Your task to perform on an android device: install app "Indeed Job Search" Image 0: 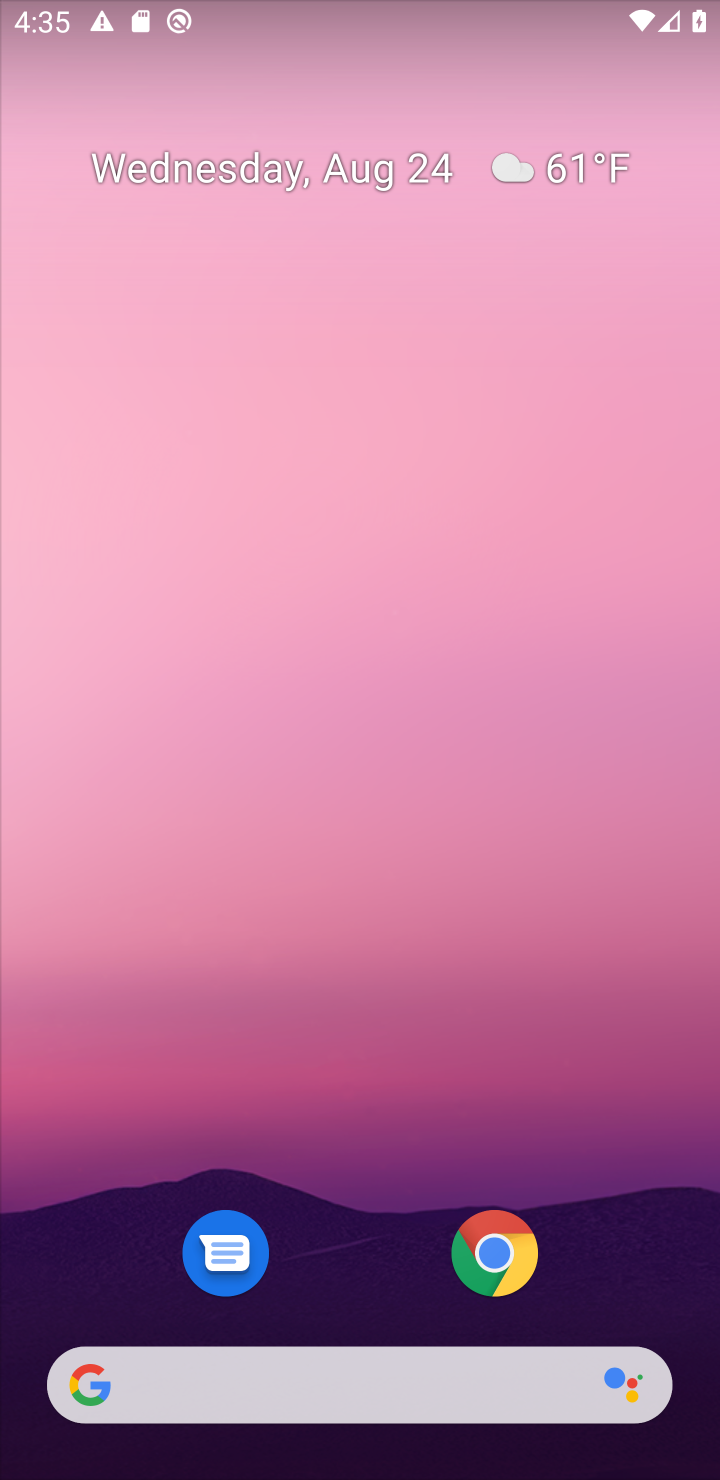
Step 0: drag from (469, 934) to (586, 15)
Your task to perform on an android device: install app "Indeed Job Search" Image 1: 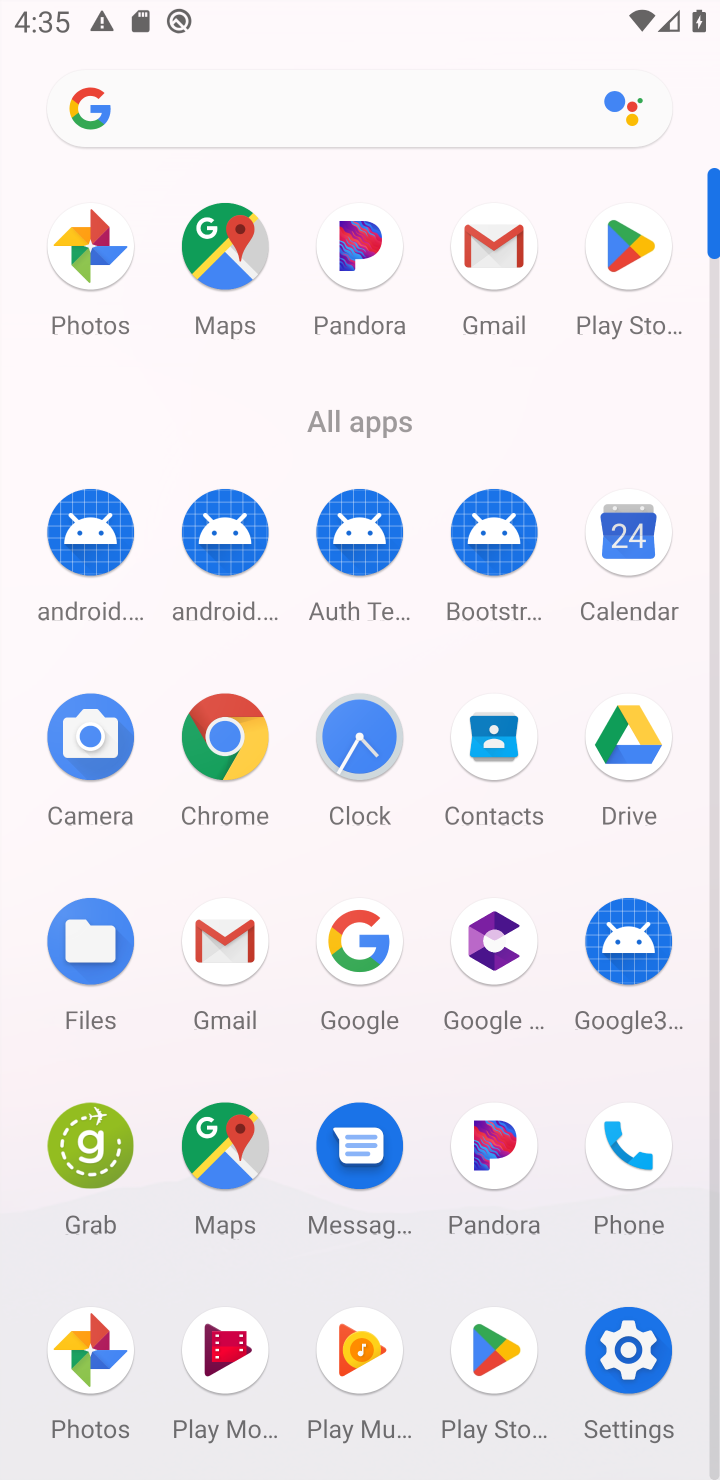
Step 1: click (631, 269)
Your task to perform on an android device: install app "Indeed Job Search" Image 2: 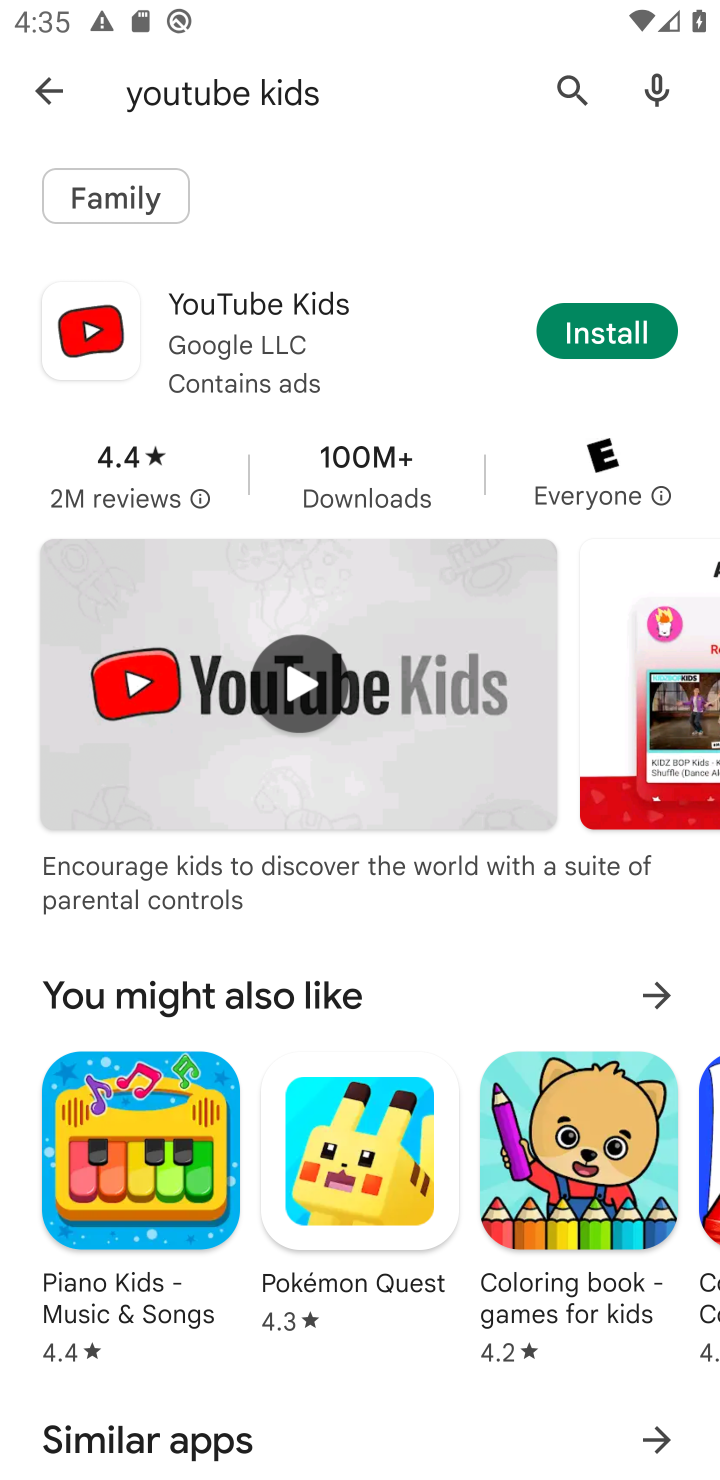
Step 2: click (586, 87)
Your task to perform on an android device: install app "Indeed Job Search" Image 3: 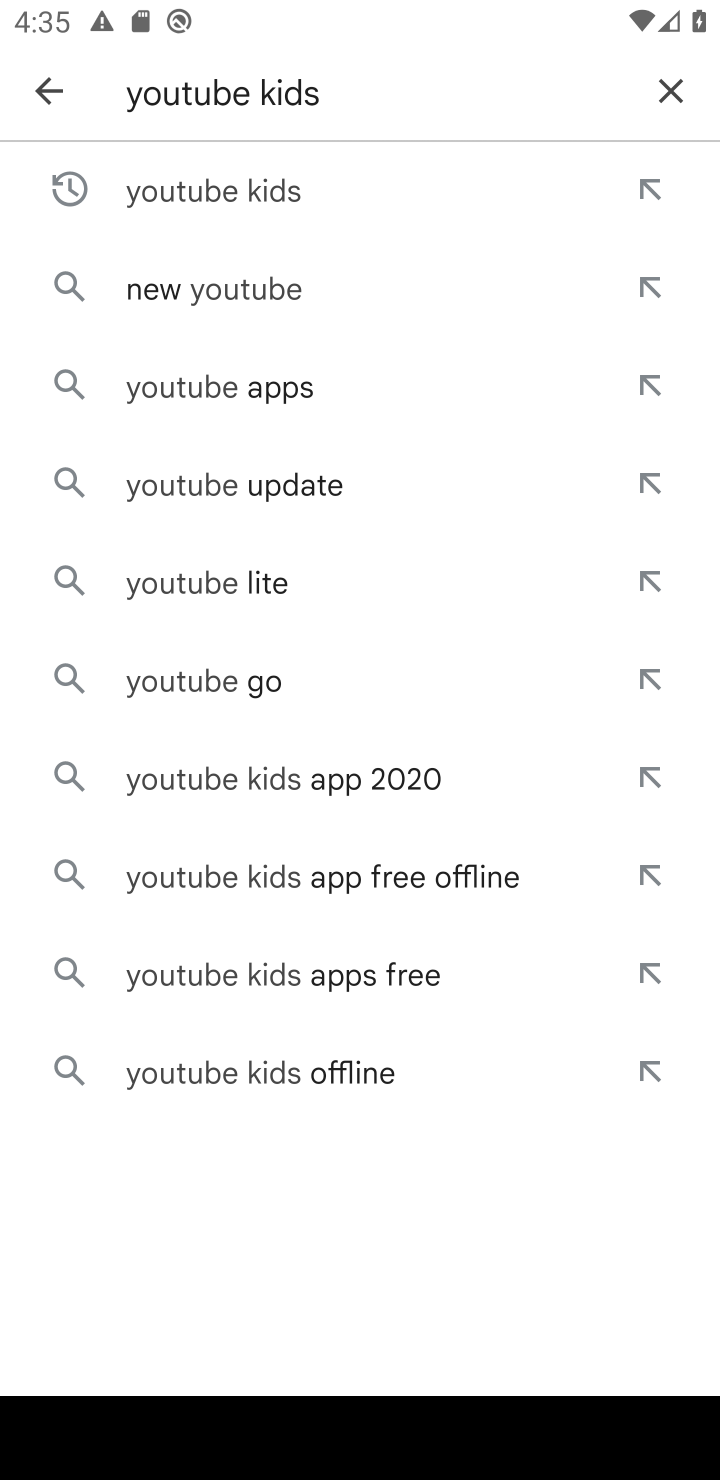
Step 3: click (653, 72)
Your task to perform on an android device: install app "Indeed Job Search" Image 4: 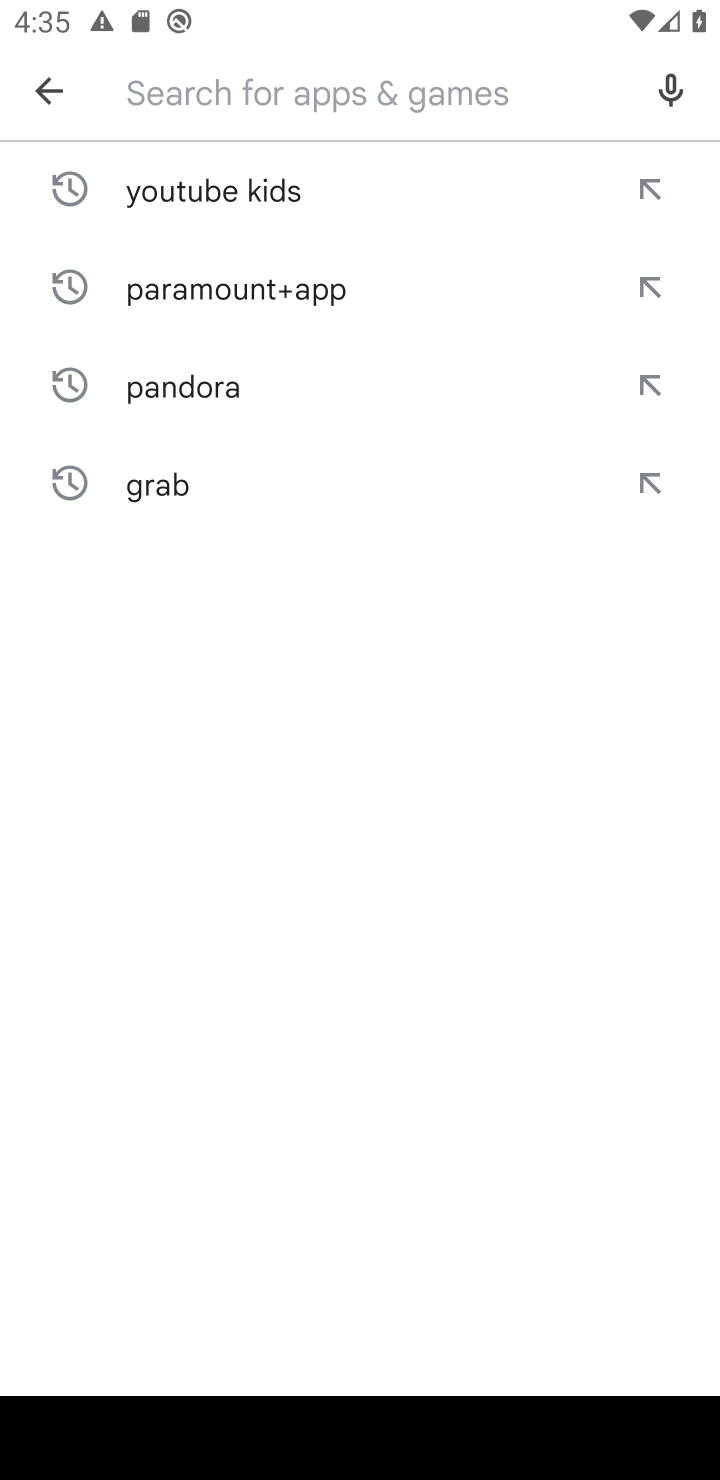
Step 4: click (209, 90)
Your task to perform on an android device: install app "Indeed Job Search" Image 5: 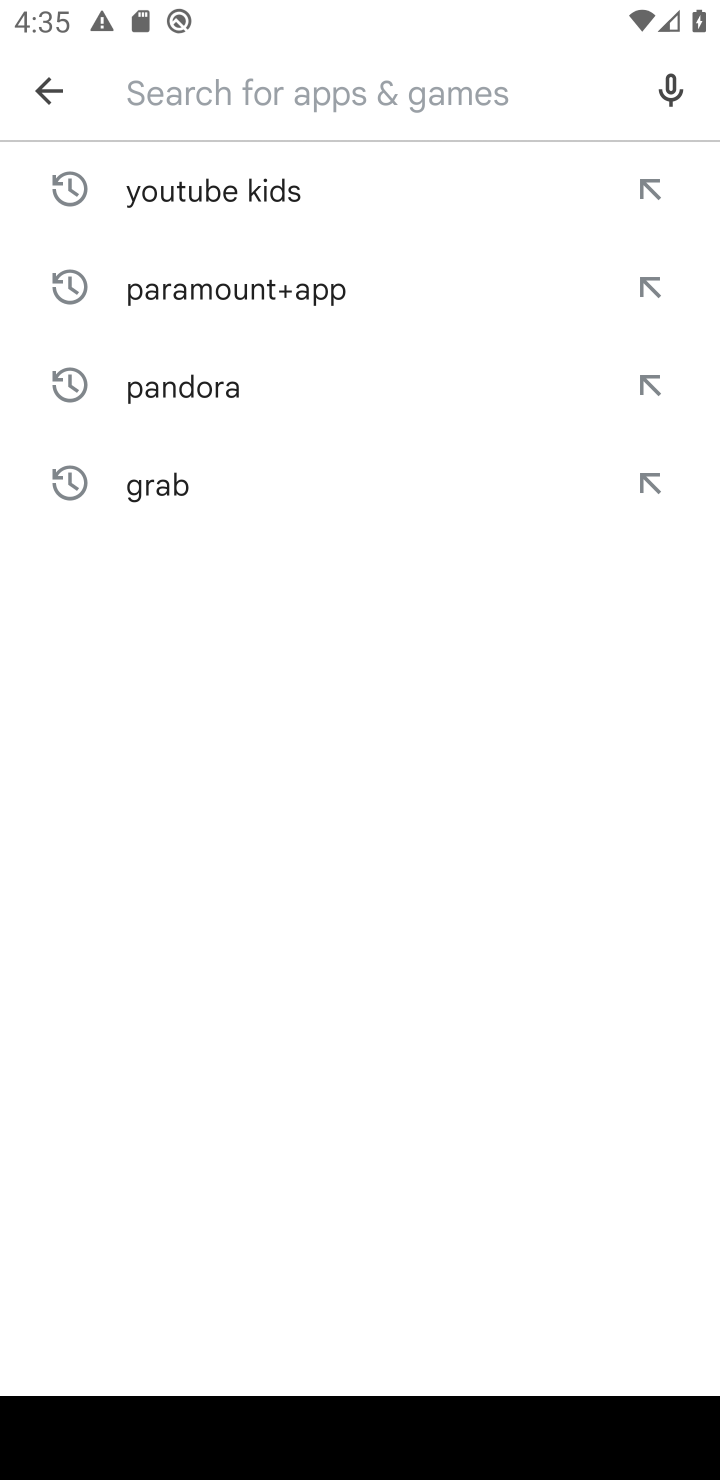
Step 5: type "Indeed Job Search"
Your task to perform on an android device: install app "Indeed Job Search" Image 6: 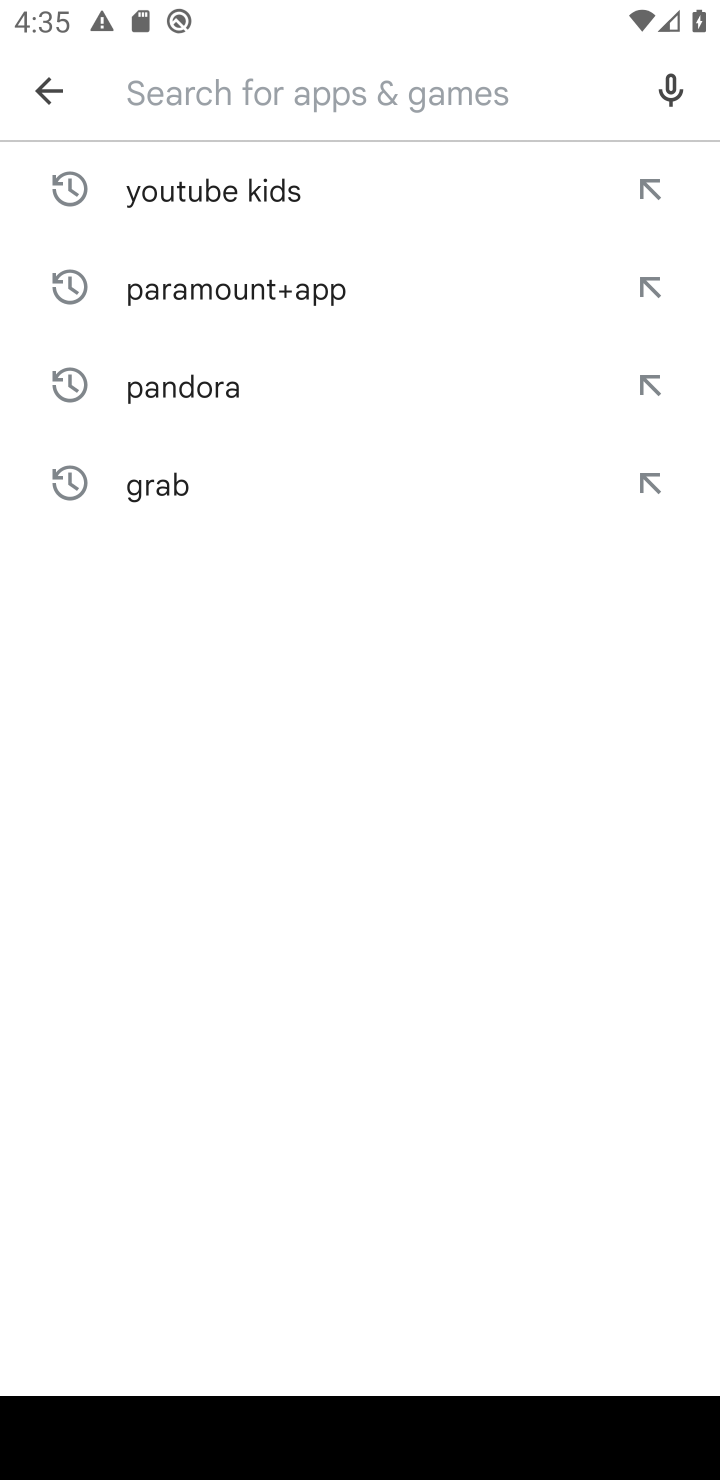
Step 6: click (375, 1004)
Your task to perform on an android device: install app "Indeed Job Search" Image 7: 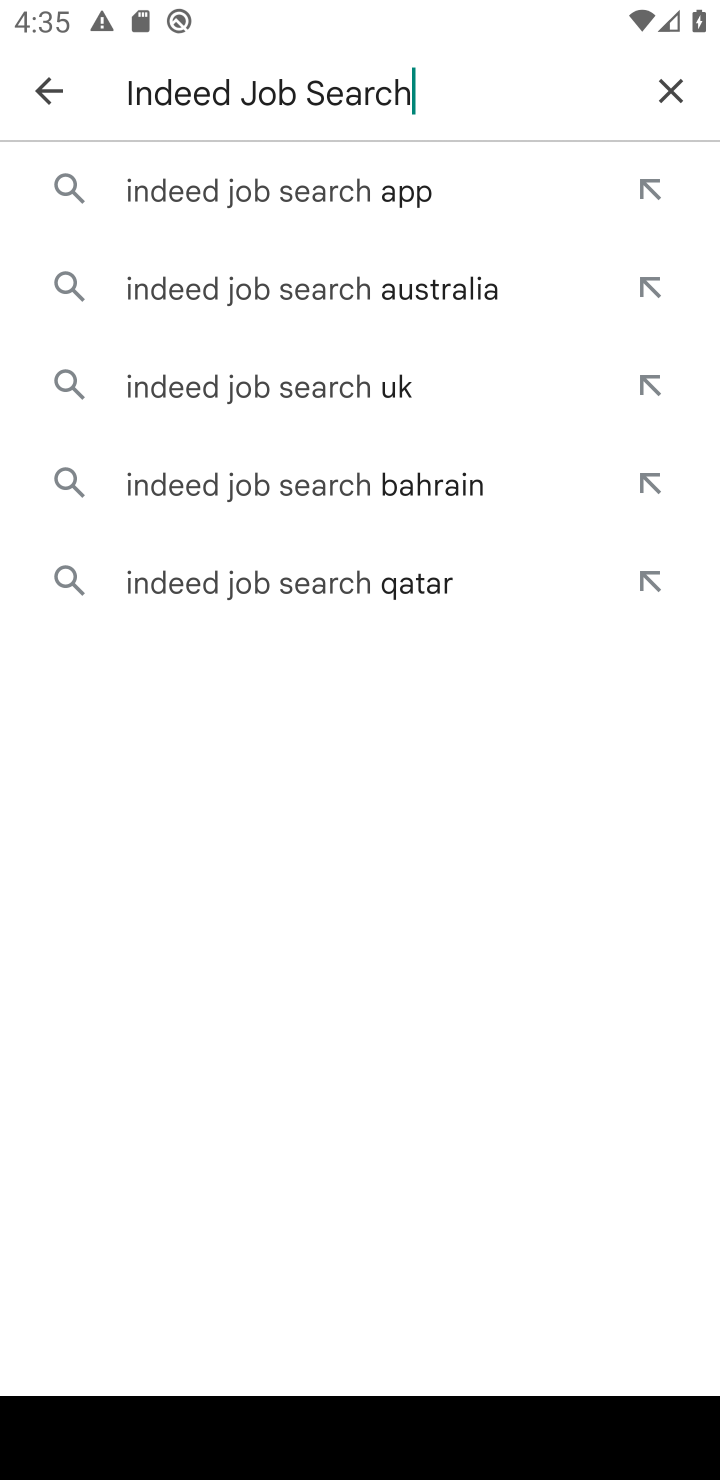
Step 7: click (213, 190)
Your task to perform on an android device: install app "Indeed Job Search" Image 8: 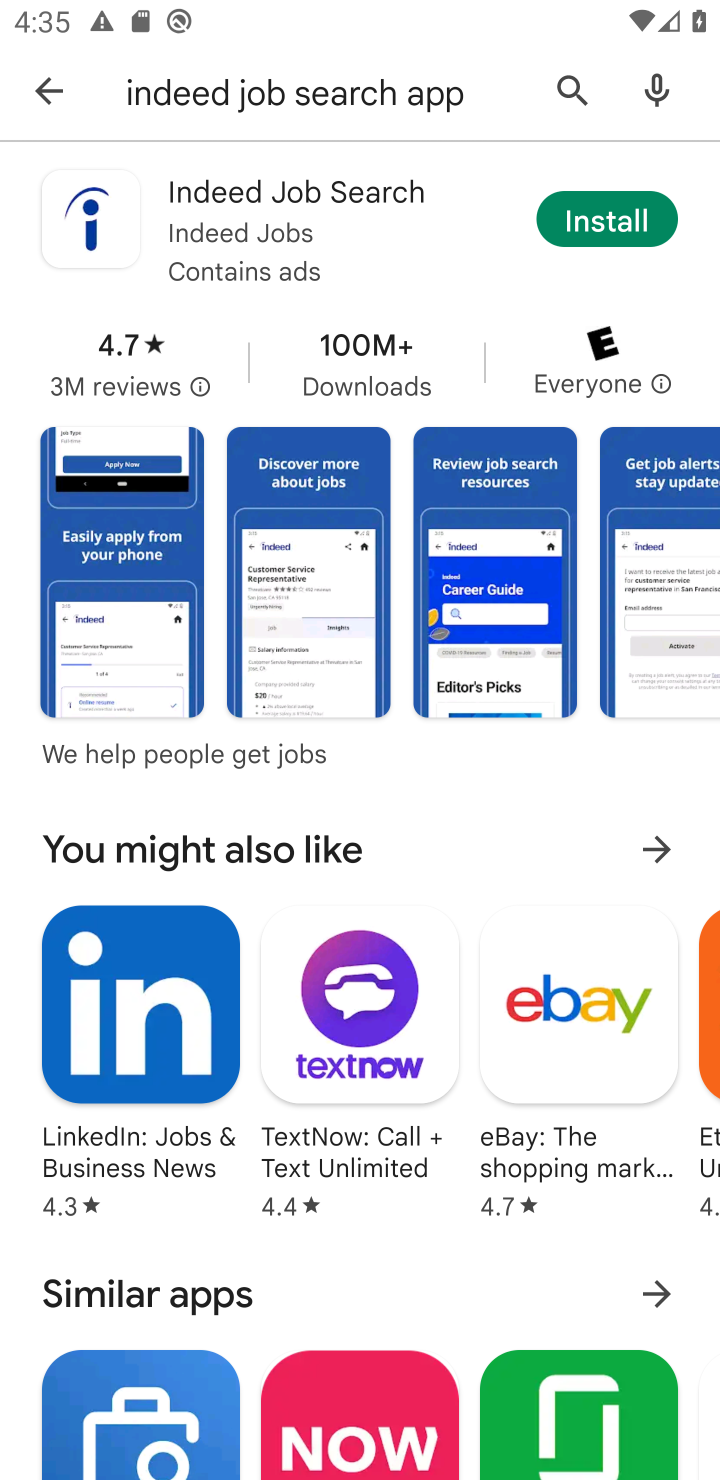
Step 8: click (598, 224)
Your task to perform on an android device: install app "Indeed Job Search" Image 9: 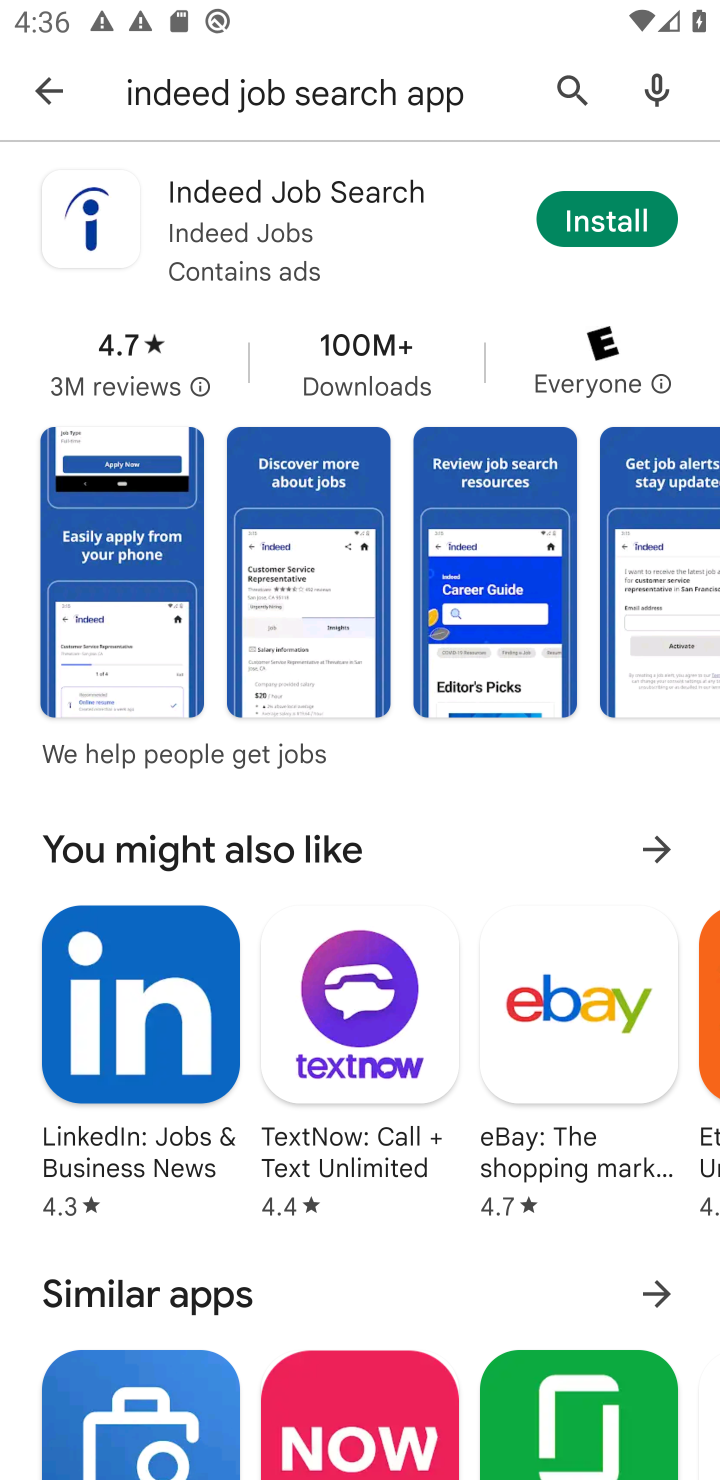
Step 9: click (576, 229)
Your task to perform on an android device: install app "Indeed Job Search" Image 10: 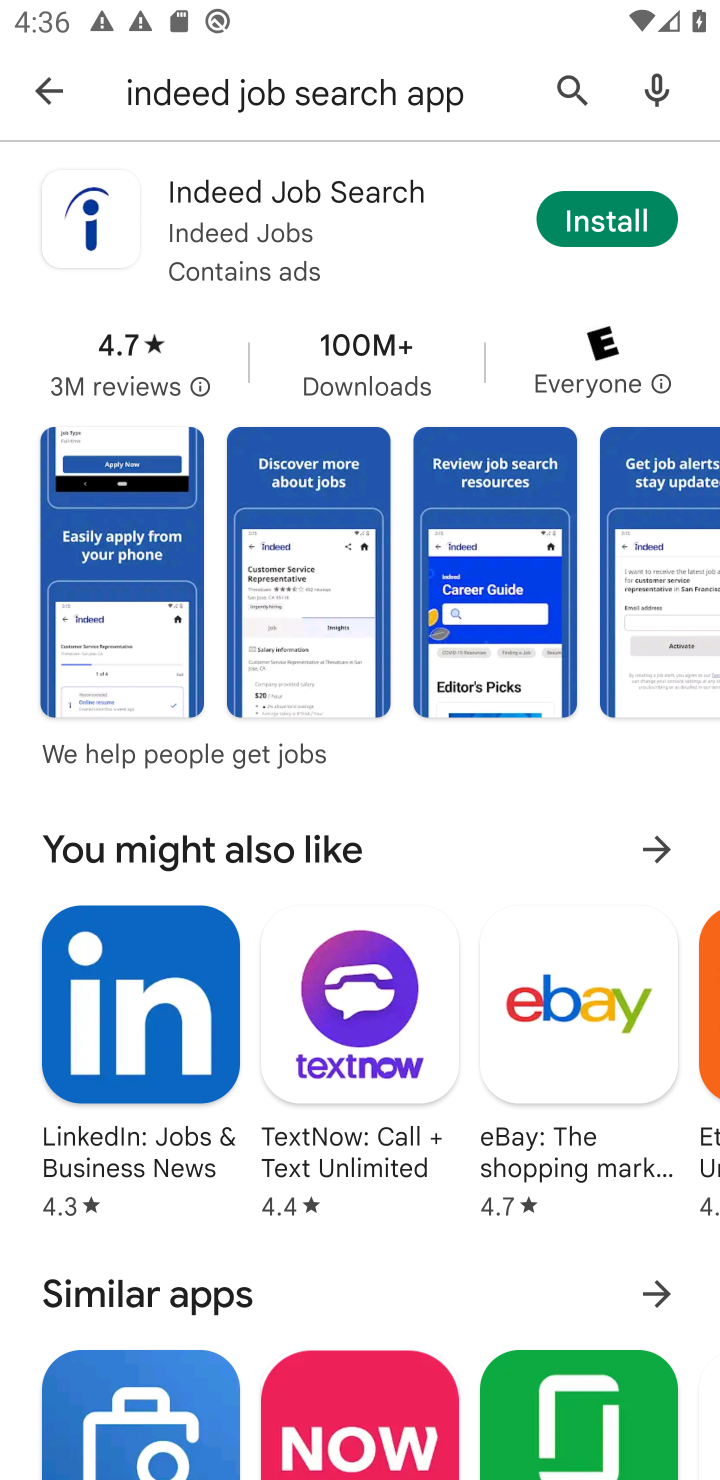
Step 10: click (609, 220)
Your task to perform on an android device: install app "Indeed Job Search" Image 11: 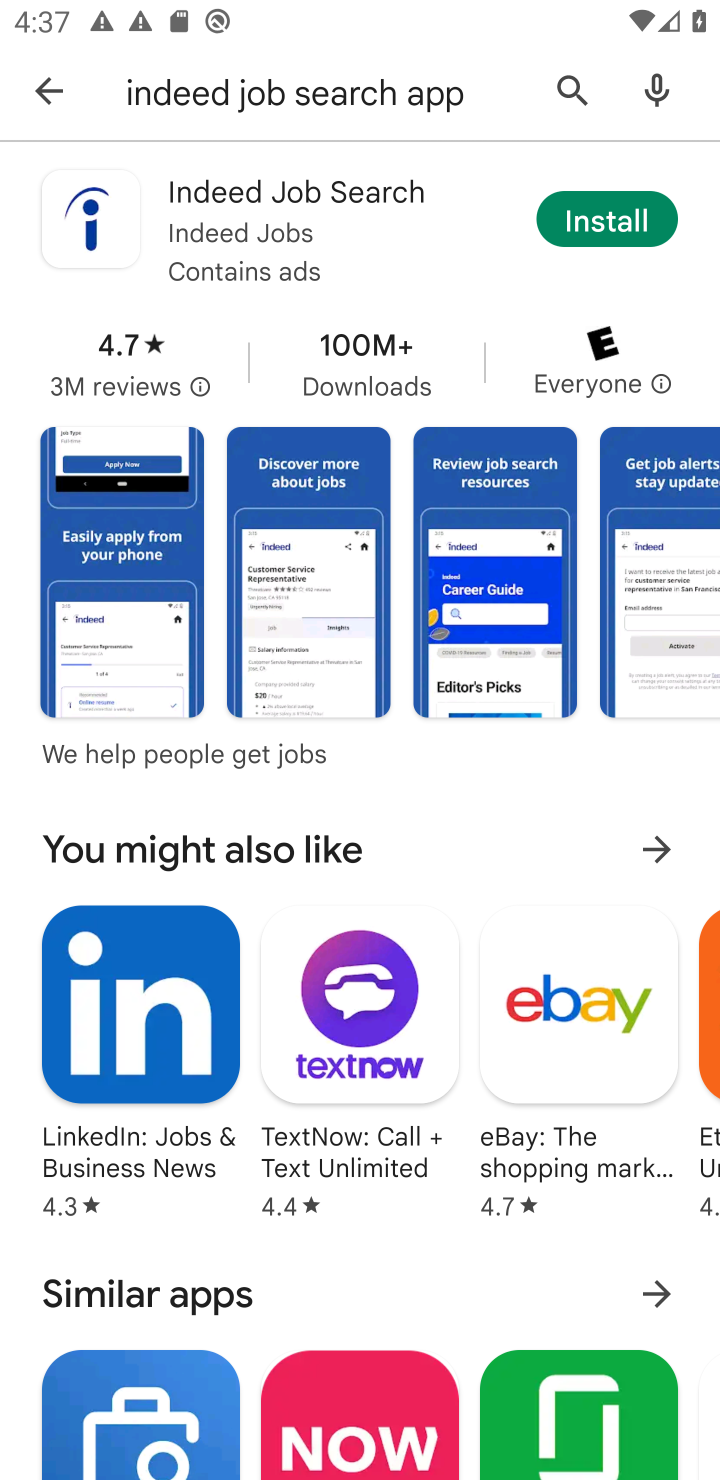
Step 11: click (571, 222)
Your task to perform on an android device: install app "Indeed Job Search" Image 12: 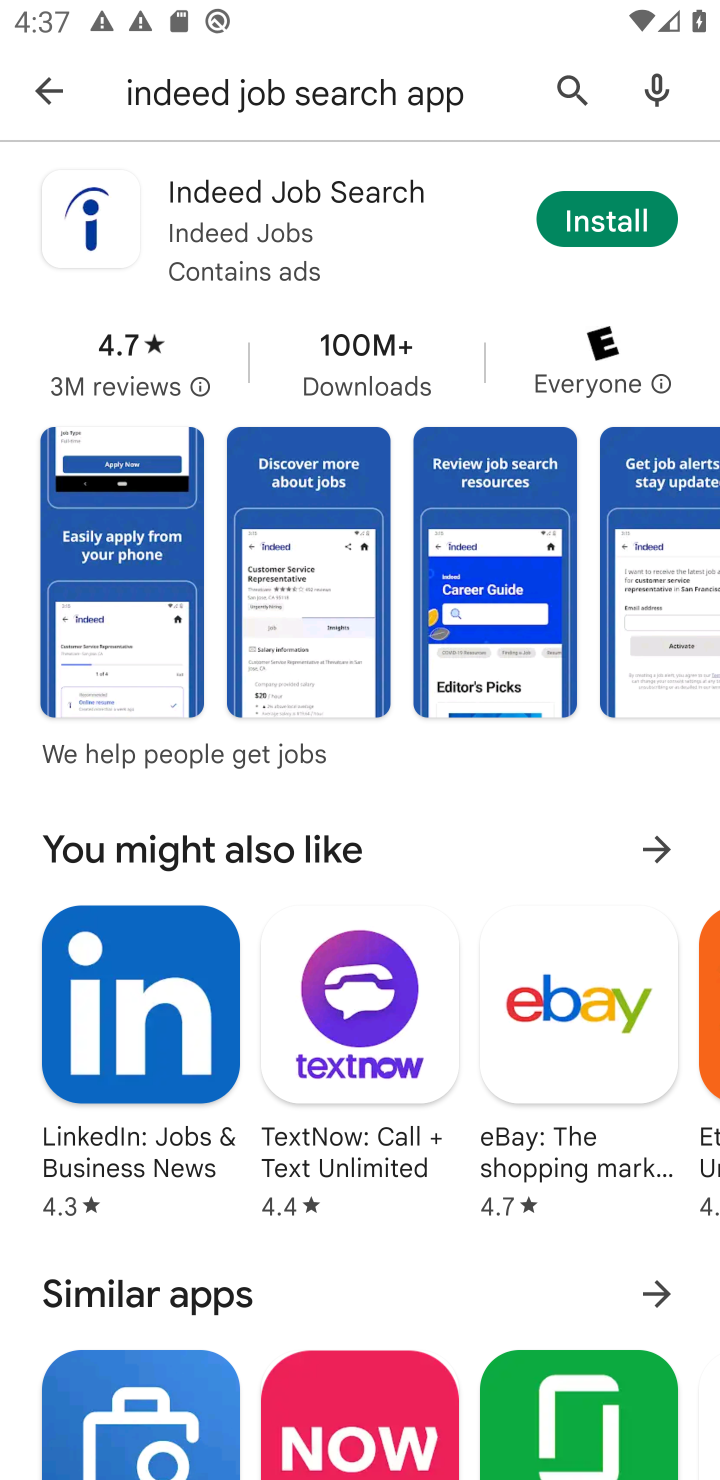
Step 12: task complete